Your task to perform on an android device: delete browsing data in the chrome app Image 0: 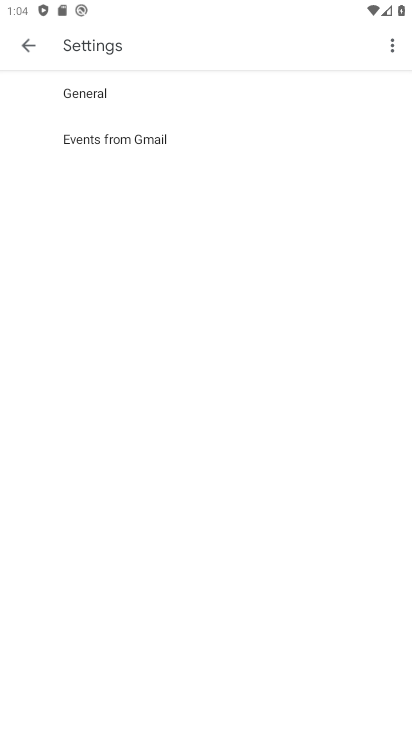
Step 0: press home button
Your task to perform on an android device: delete browsing data in the chrome app Image 1: 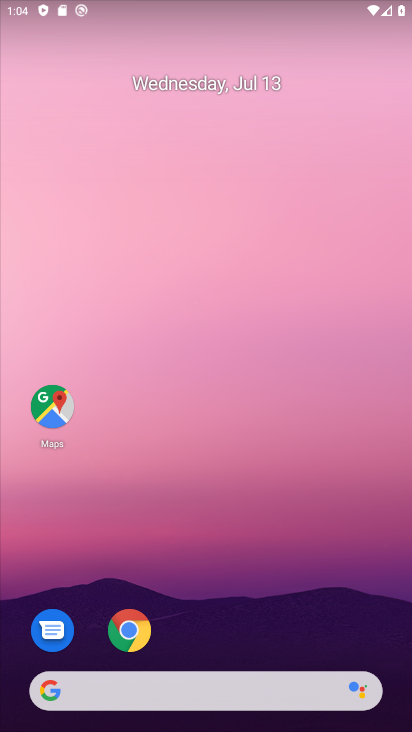
Step 1: drag from (290, 621) to (292, 120)
Your task to perform on an android device: delete browsing data in the chrome app Image 2: 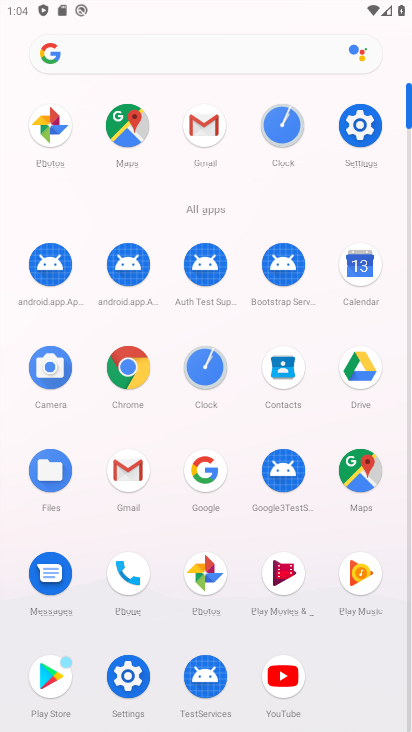
Step 2: click (139, 363)
Your task to perform on an android device: delete browsing data in the chrome app Image 3: 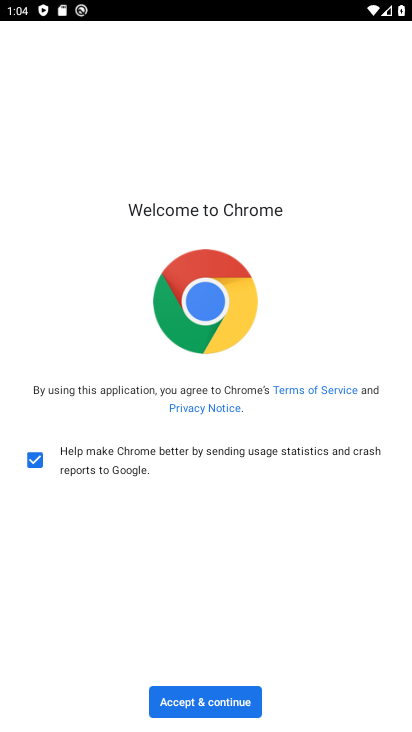
Step 3: click (215, 699)
Your task to perform on an android device: delete browsing data in the chrome app Image 4: 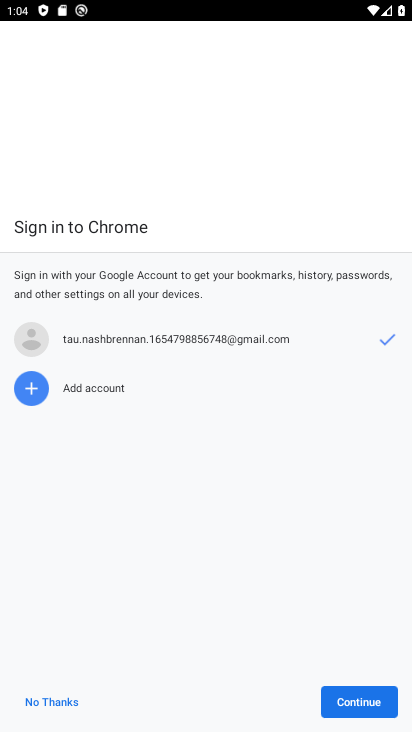
Step 4: click (344, 703)
Your task to perform on an android device: delete browsing data in the chrome app Image 5: 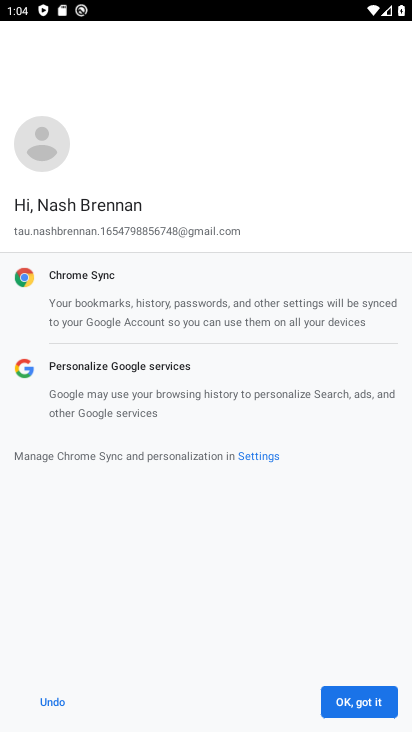
Step 5: click (370, 703)
Your task to perform on an android device: delete browsing data in the chrome app Image 6: 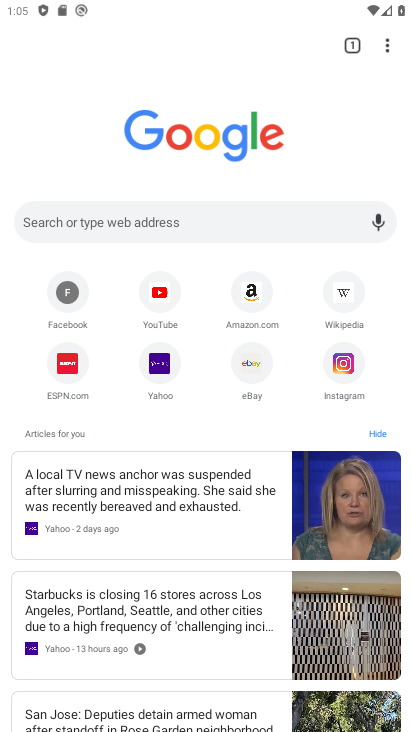
Step 6: click (385, 44)
Your task to perform on an android device: delete browsing data in the chrome app Image 7: 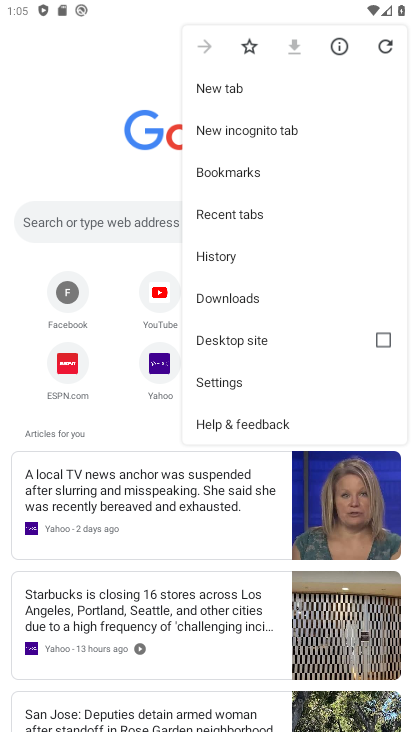
Step 7: click (274, 385)
Your task to perform on an android device: delete browsing data in the chrome app Image 8: 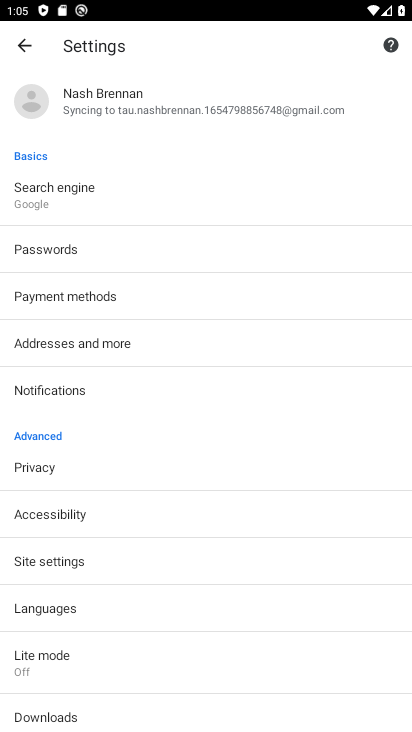
Step 8: drag from (274, 476) to (293, 376)
Your task to perform on an android device: delete browsing data in the chrome app Image 9: 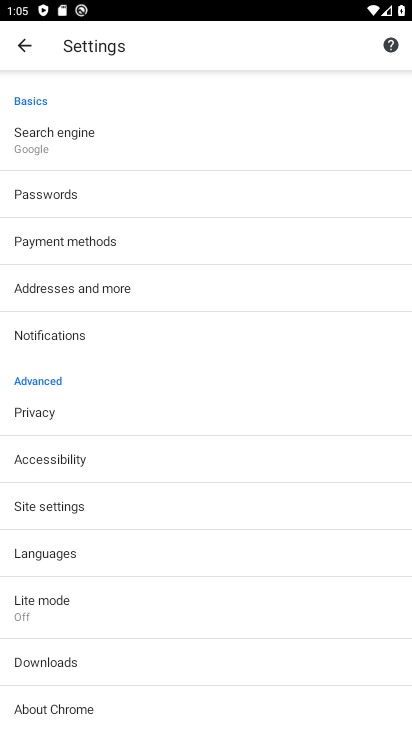
Step 9: drag from (303, 483) to (318, 312)
Your task to perform on an android device: delete browsing data in the chrome app Image 10: 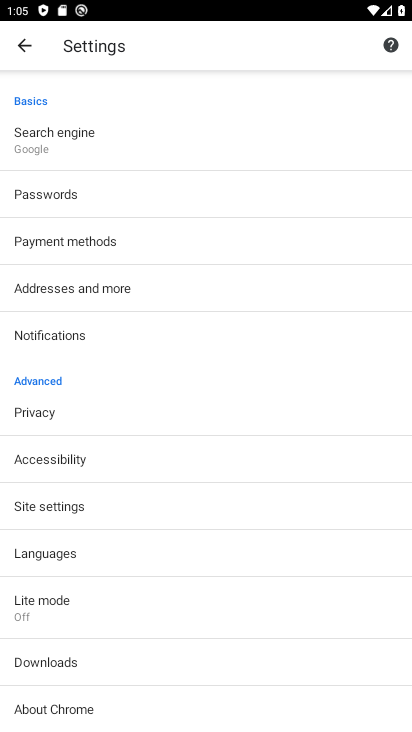
Step 10: click (237, 423)
Your task to perform on an android device: delete browsing data in the chrome app Image 11: 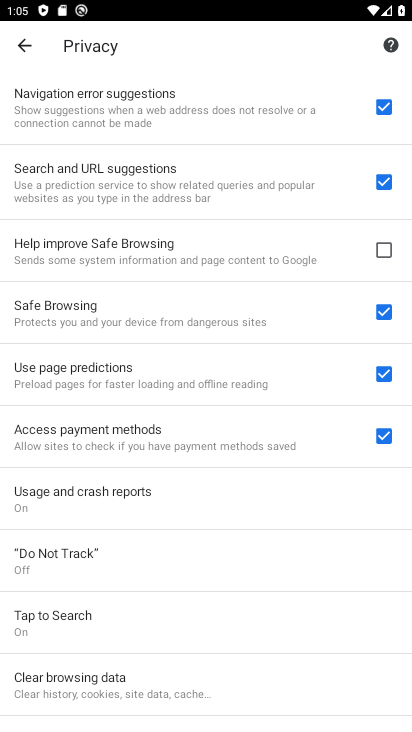
Step 11: drag from (272, 525) to (273, 378)
Your task to perform on an android device: delete browsing data in the chrome app Image 12: 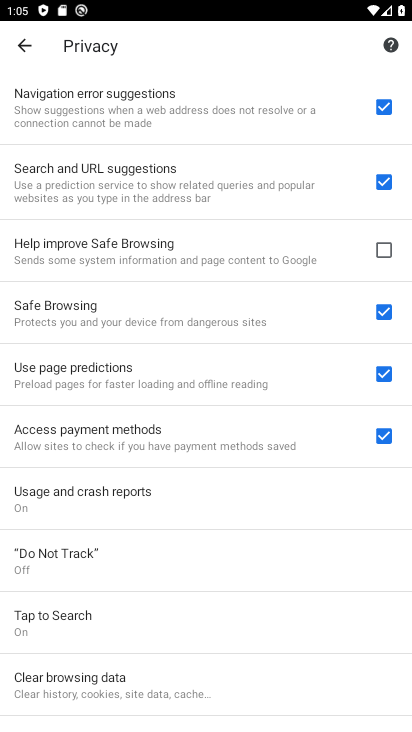
Step 12: click (247, 688)
Your task to perform on an android device: delete browsing data in the chrome app Image 13: 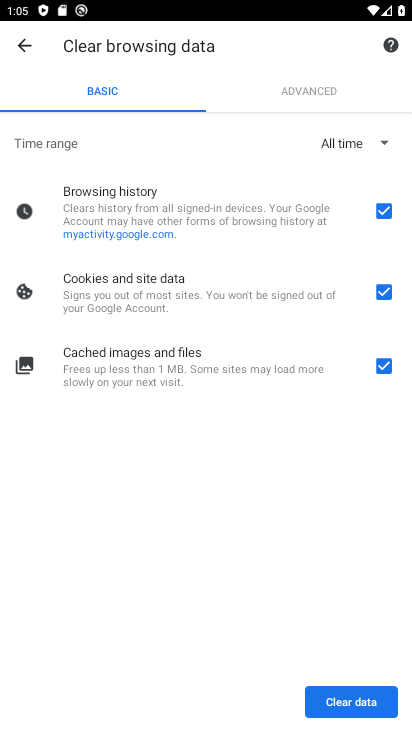
Step 13: click (350, 704)
Your task to perform on an android device: delete browsing data in the chrome app Image 14: 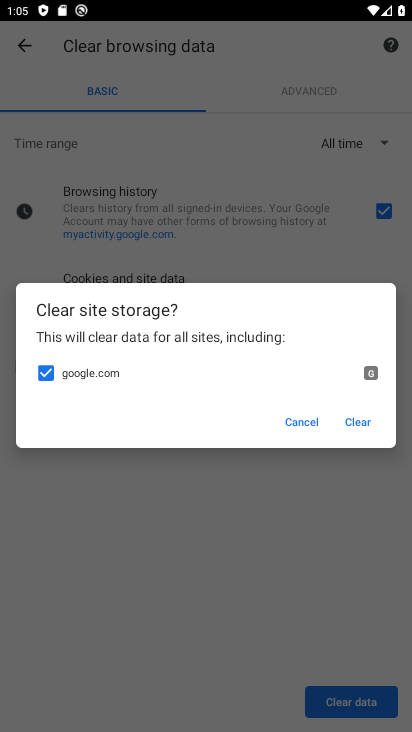
Step 14: click (362, 423)
Your task to perform on an android device: delete browsing data in the chrome app Image 15: 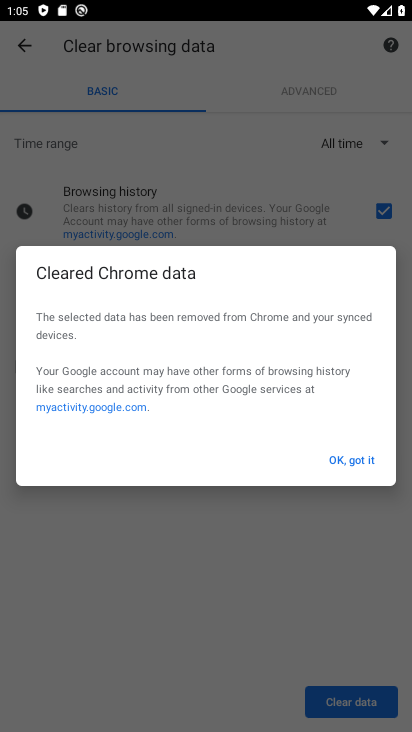
Step 15: click (339, 466)
Your task to perform on an android device: delete browsing data in the chrome app Image 16: 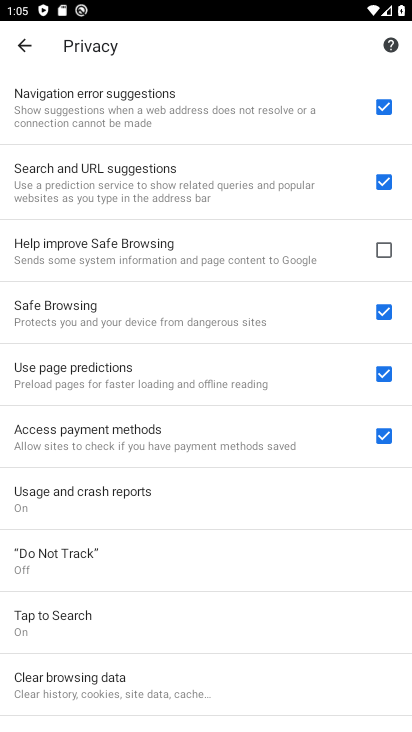
Step 16: task complete